Your task to perform on an android device: find which apps use the phone's location Image 0: 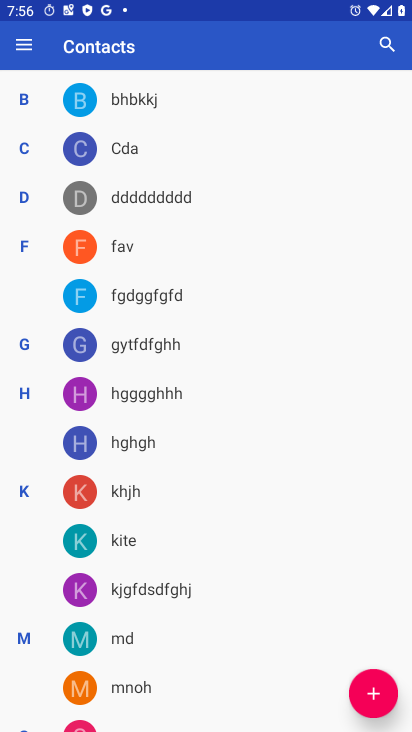
Step 0: press home button
Your task to perform on an android device: find which apps use the phone's location Image 1: 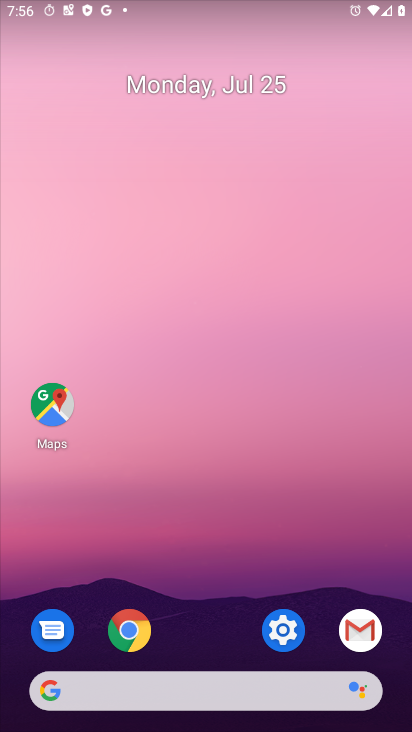
Step 1: click (286, 624)
Your task to perform on an android device: find which apps use the phone's location Image 2: 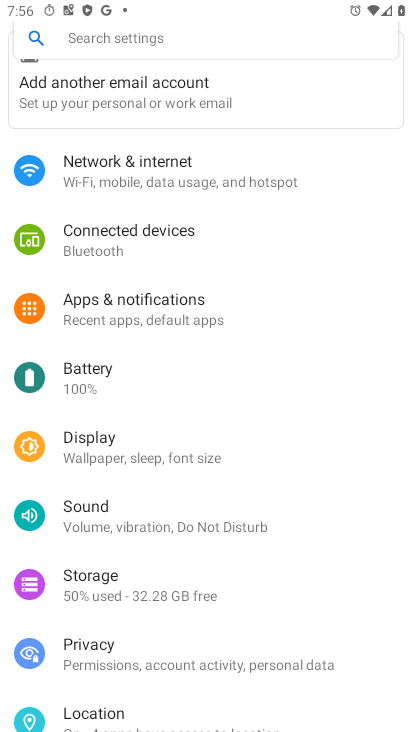
Step 2: click (273, 590)
Your task to perform on an android device: find which apps use the phone's location Image 3: 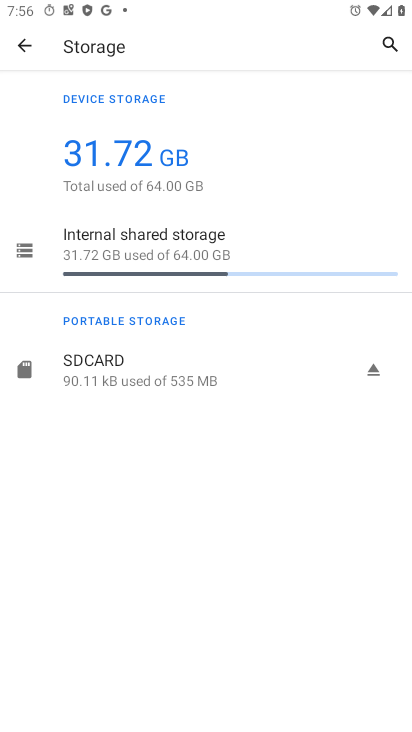
Step 3: click (17, 51)
Your task to perform on an android device: find which apps use the phone's location Image 4: 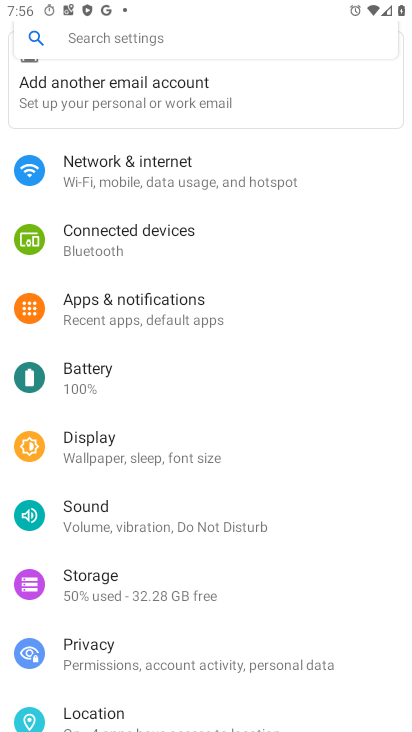
Step 4: click (137, 700)
Your task to perform on an android device: find which apps use the phone's location Image 5: 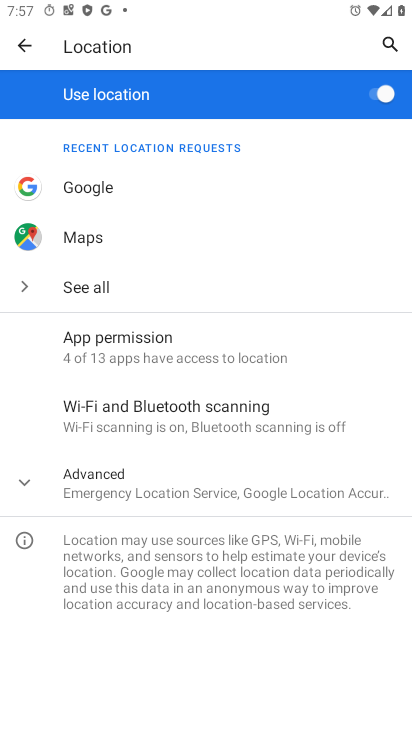
Step 5: task complete